Your task to perform on an android device: change notification settings in the gmail app Image 0: 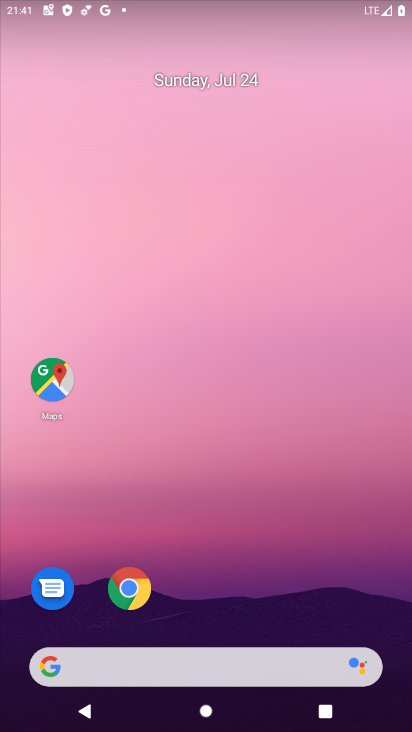
Step 0: drag from (186, 658) to (239, 158)
Your task to perform on an android device: change notification settings in the gmail app Image 1: 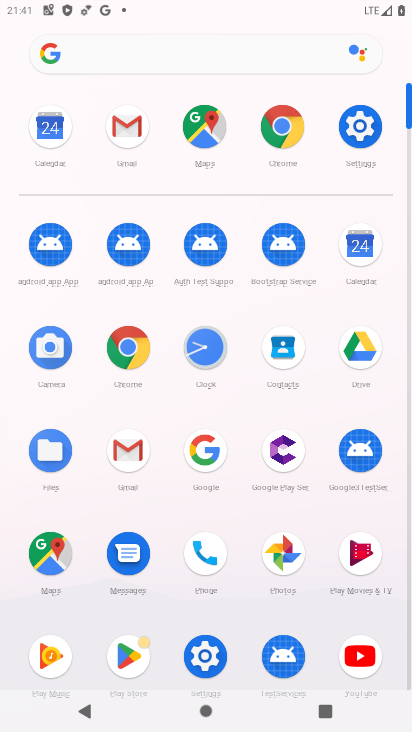
Step 1: click (129, 440)
Your task to perform on an android device: change notification settings in the gmail app Image 2: 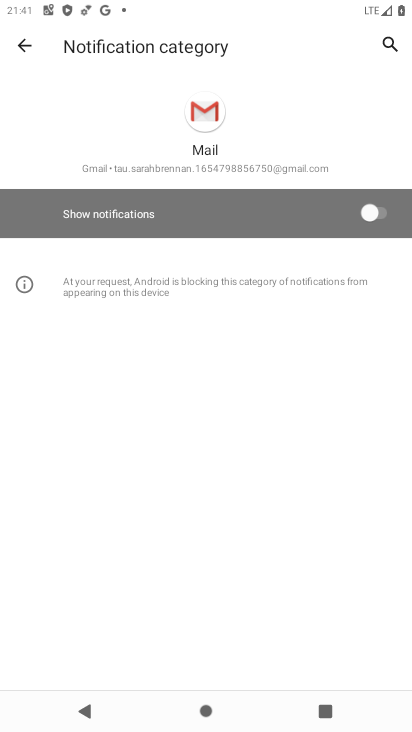
Step 2: click (372, 214)
Your task to perform on an android device: change notification settings in the gmail app Image 3: 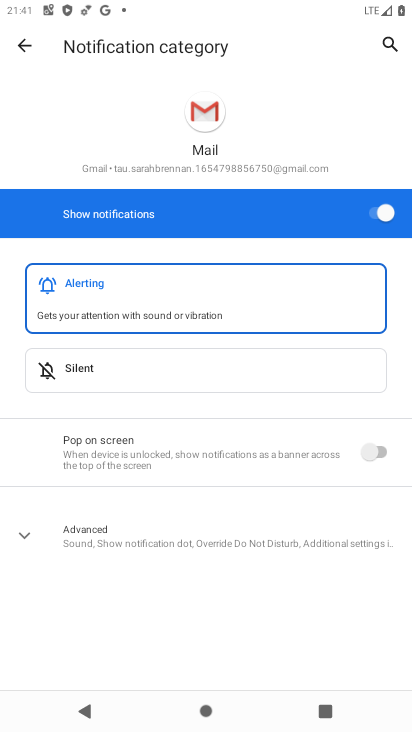
Step 3: task complete